Your task to perform on an android device: Search for vegetarian restaurants on Maps Image 0: 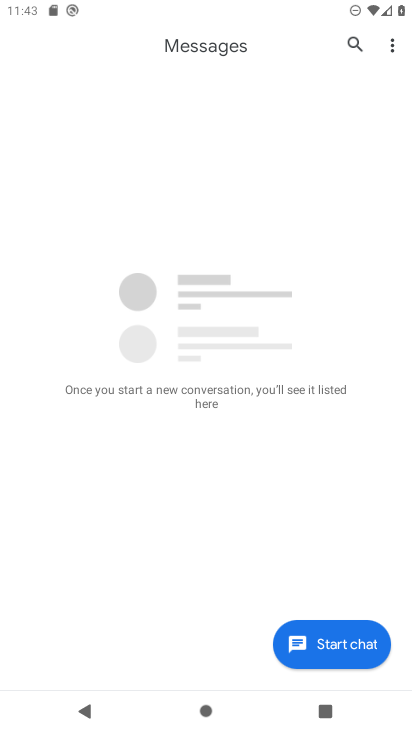
Step 0: press back button
Your task to perform on an android device: Search for vegetarian restaurants on Maps Image 1: 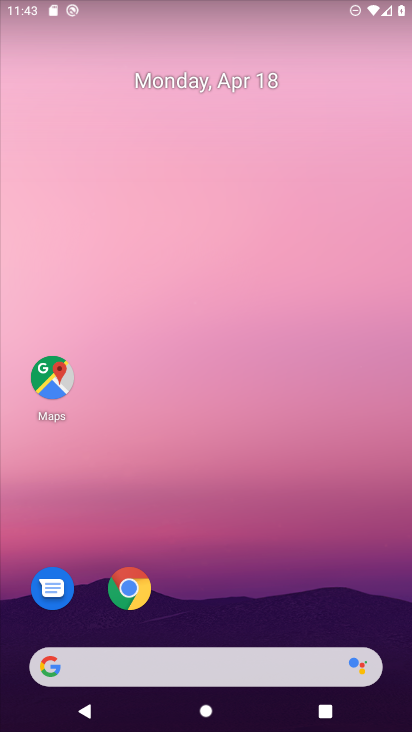
Step 1: drag from (298, 598) to (195, 78)
Your task to perform on an android device: Search for vegetarian restaurants on Maps Image 2: 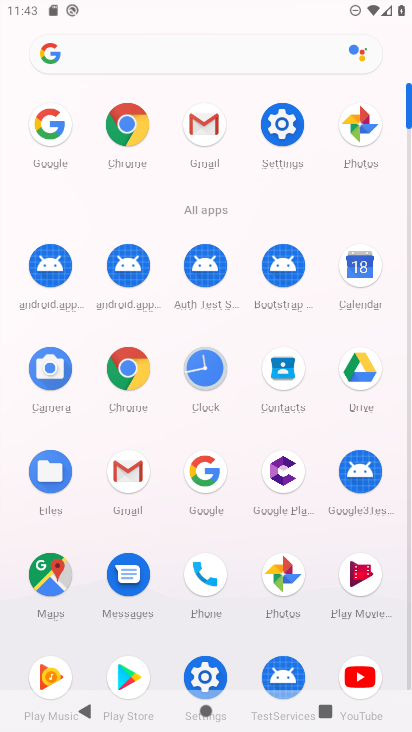
Step 2: click (38, 568)
Your task to perform on an android device: Search for vegetarian restaurants on Maps Image 3: 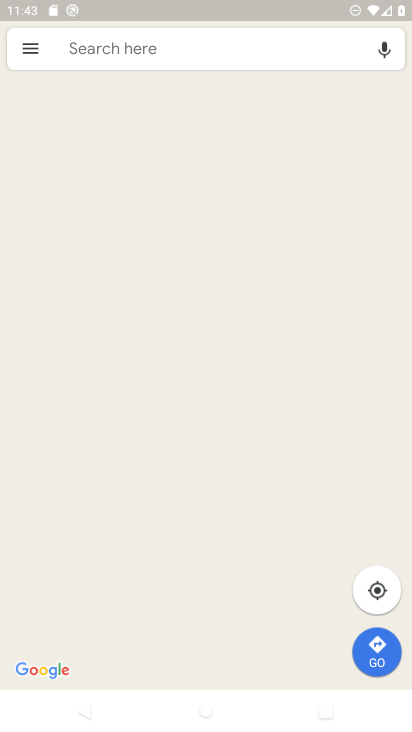
Step 3: click (226, 53)
Your task to perform on an android device: Search for vegetarian restaurants on Maps Image 4: 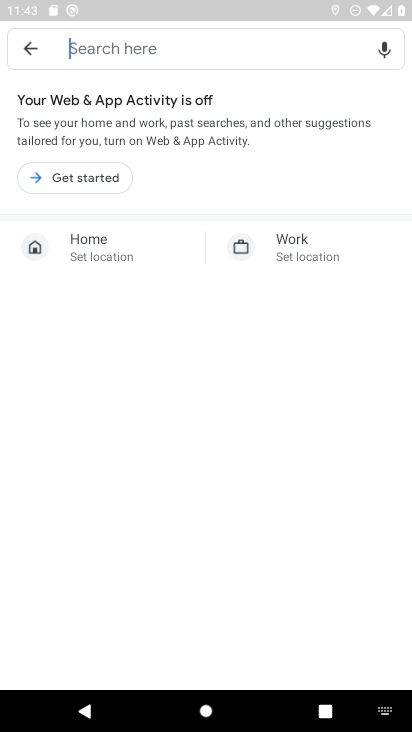
Step 4: click (203, 59)
Your task to perform on an android device: Search for vegetarian restaurants on Maps Image 5: 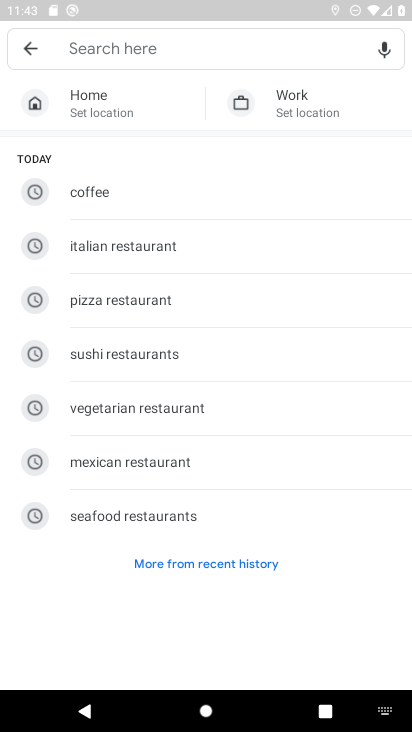
Step 5: click (218, 416)
Your task to perform on an android device: Search for vegetarian restaurants on Maps Image 6: 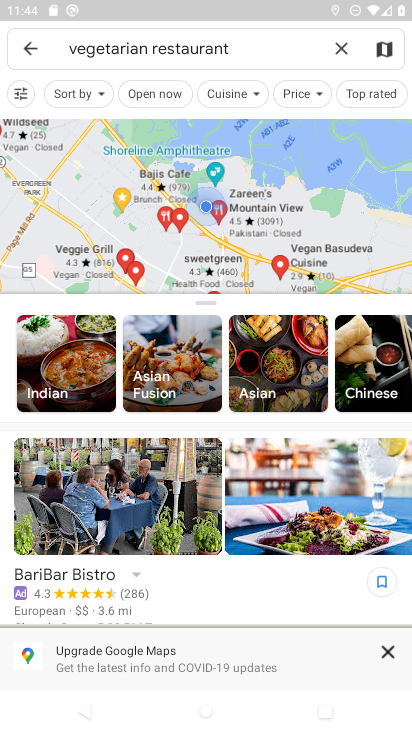
Step 6: task complete